Your task to perform on an android device: Go to settings Image 0: 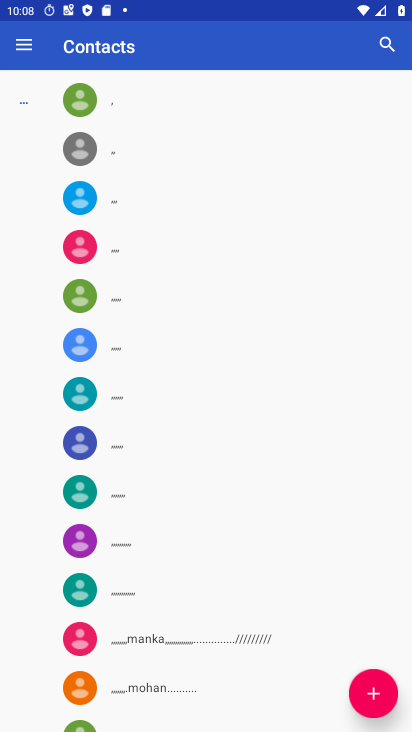
Step 0: press home button
Your task to perform on an android device: Go to settings Image 1: 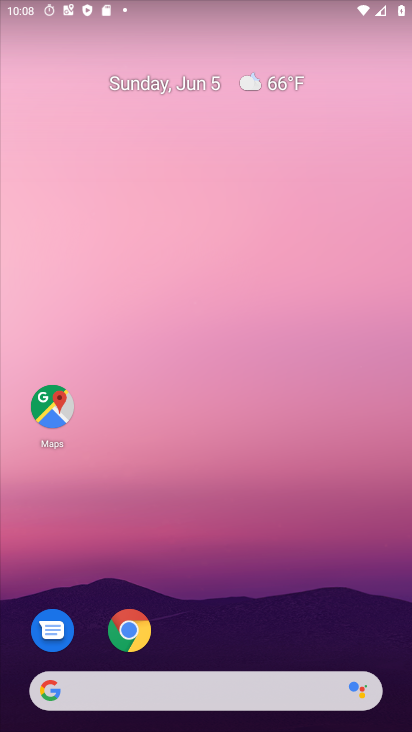
Step 1: drag from (249, 727) to (232, 84)
Your task to perform on an android device: Go to settings Image 2: 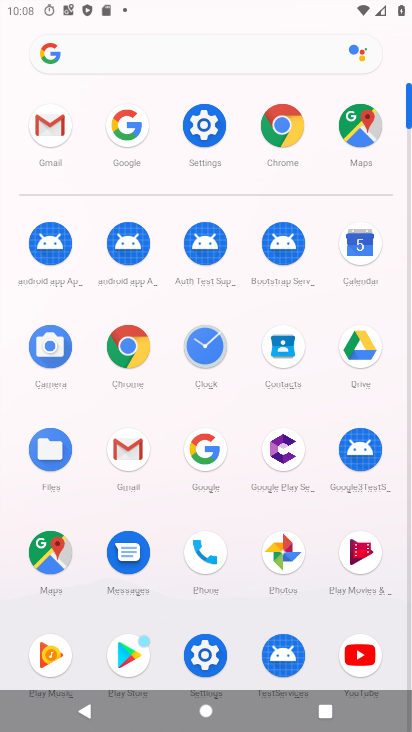
Step 2: click (212, 128)
Your task to perform on an android device: Go to settings Image 3: 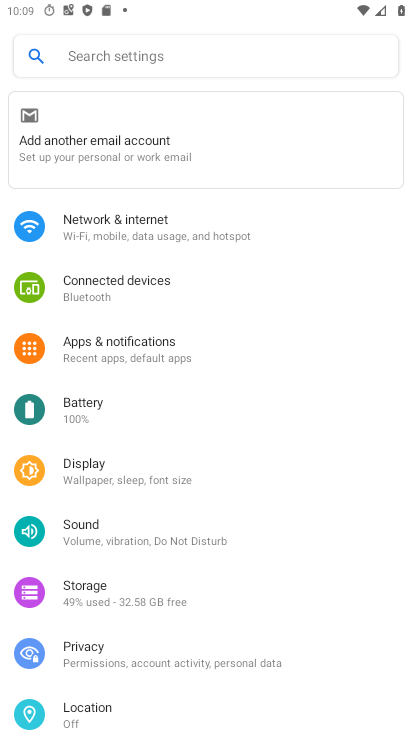
Step 3: task complete